Your task to perform on an android device: change the clock style Image 0: 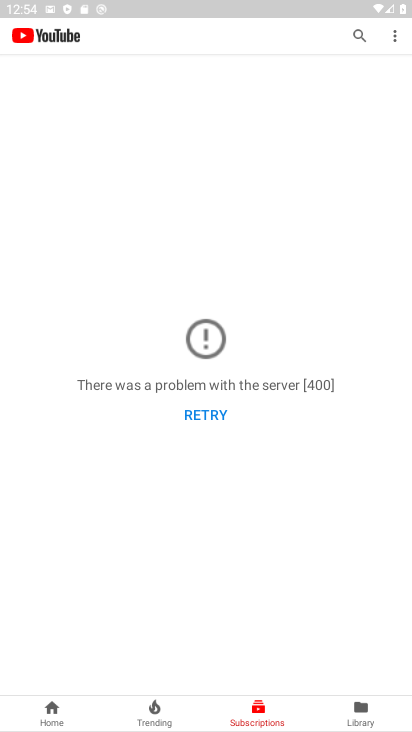
Step 0: press home button
Your task to perform on an android device: change the clock style Image 1: 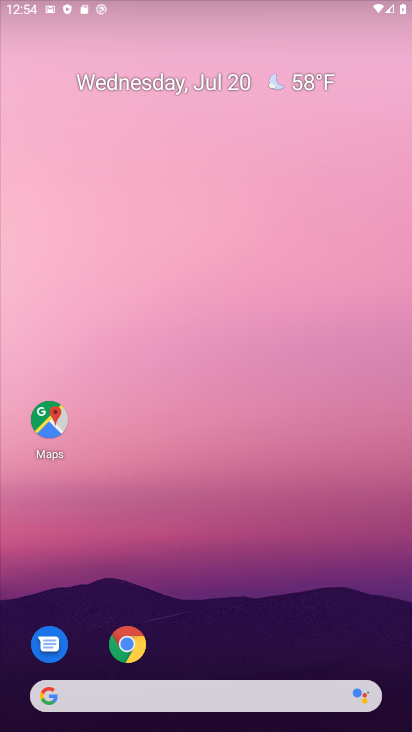
Step 1: drag from (249, 629) to (240, 83)
Your task to perform on an android device: change the clock style Image 2: 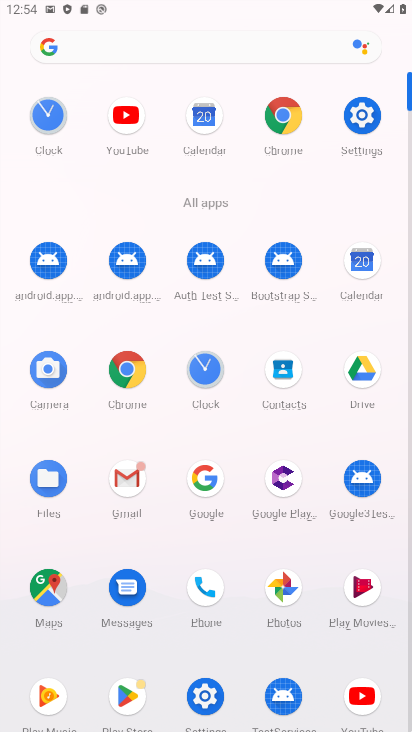
Step 2: click (210, 365)
Your task to perform on an android device: change the clock style Image 3: 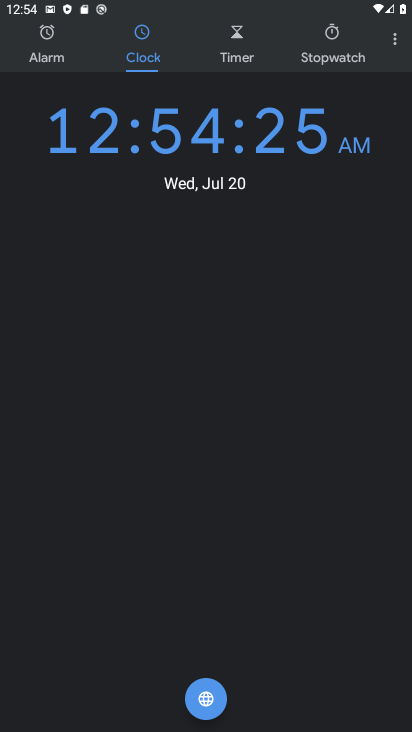
Step 3: click (394, 42)
Your task to perform on an android device: change the clock style Image 4: 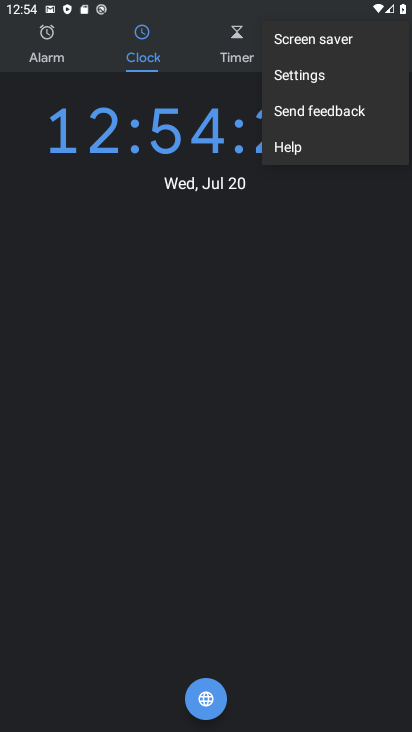
Step 4: click (320, 78)
Your task to perform on an android device: change the clock style Image 5: 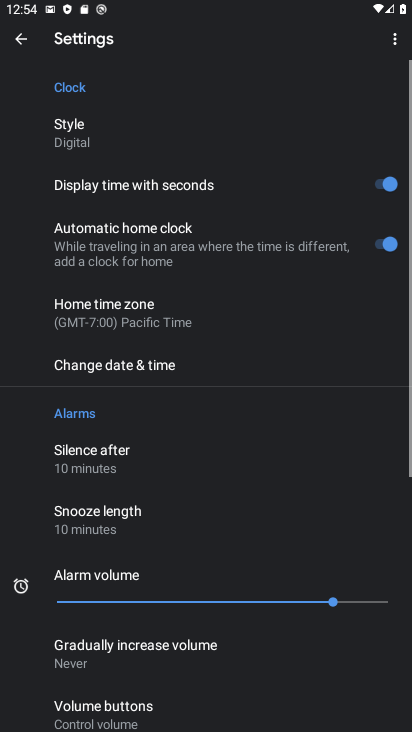
Step 5: click (90, 133)
Your task to perform on an android device: change the clock style Image 6: 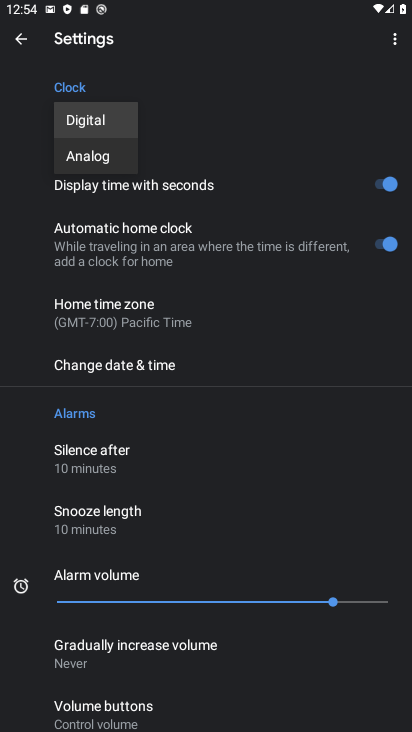
Step 6: click (98, 153)
Your task to perform on an android device: change the clock style Image 7: 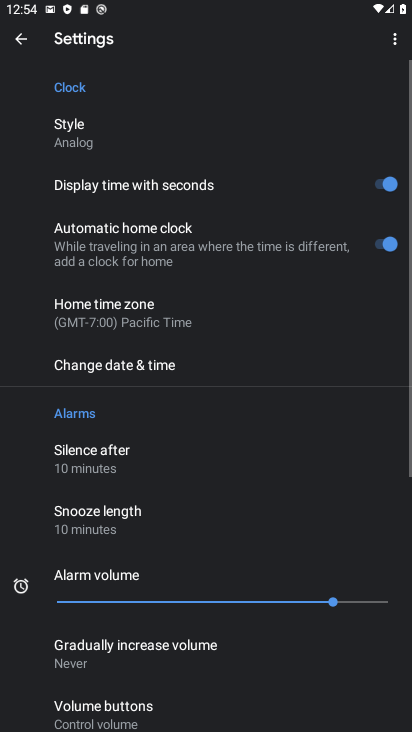
Step 7: task complete